Your task to perform on an android device: change the clock display to analog Image 0: 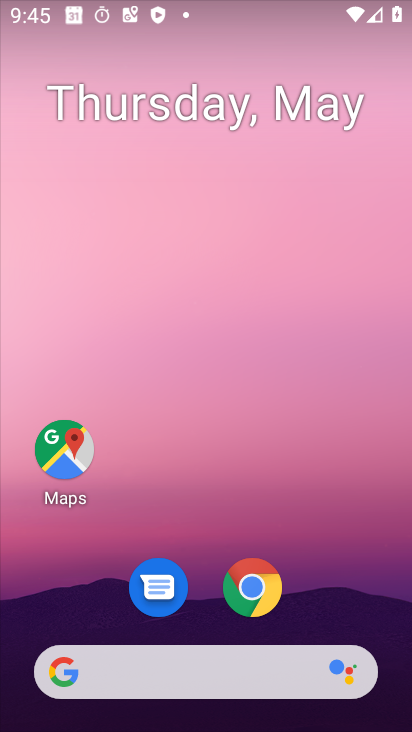
Step 0: drag from (375, 639) to (337, 23)
Your task to perform on an android device: change the clock display to analog Image 1: 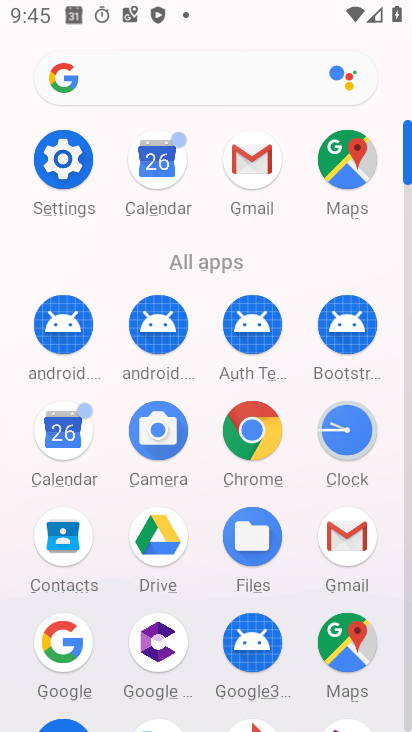
Step 1: click (344, 427)
Your task to perform on an android device: change the clock display to analog Image 2: 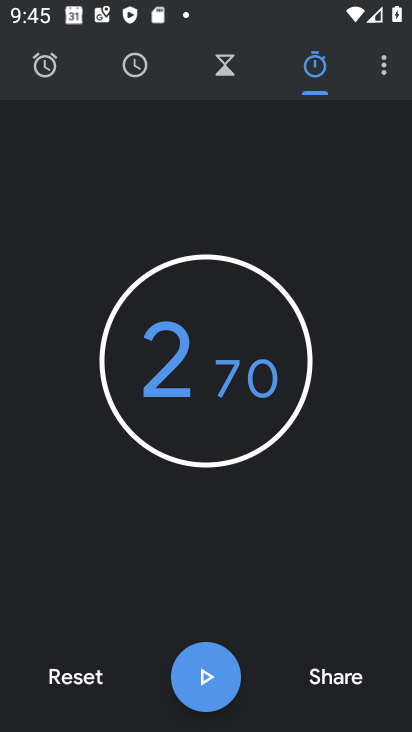
Step 2: click (388, 66)
Your task to perform on an android device: change the clock display to analog Image 3: 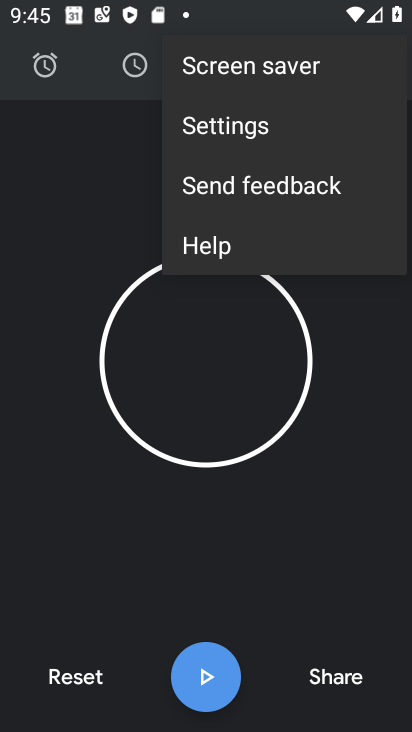
Step 3: click (257, 135)
Your task to perform on an android device: change the clock display to analog Image 4: 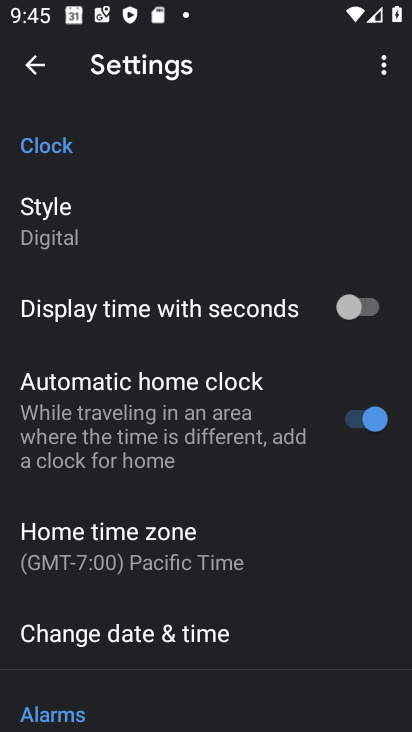
Step 4: click (57, 225)
Your task to perform on an android device: change the clock display to analog Image 5: 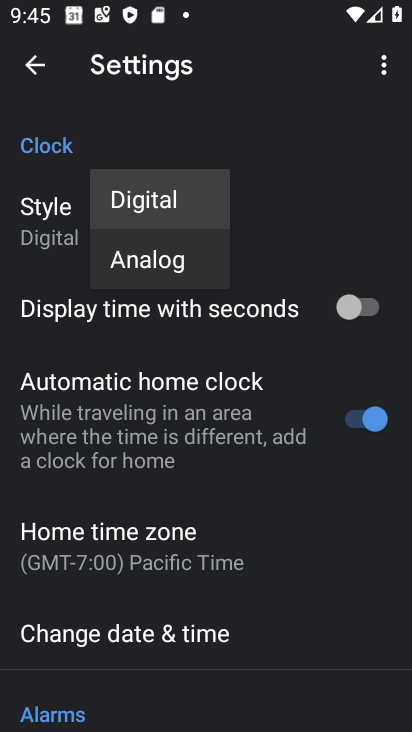
Step 5: click (140, 265)
Your task to perform on an android device: change the clock display to analog Image 6: 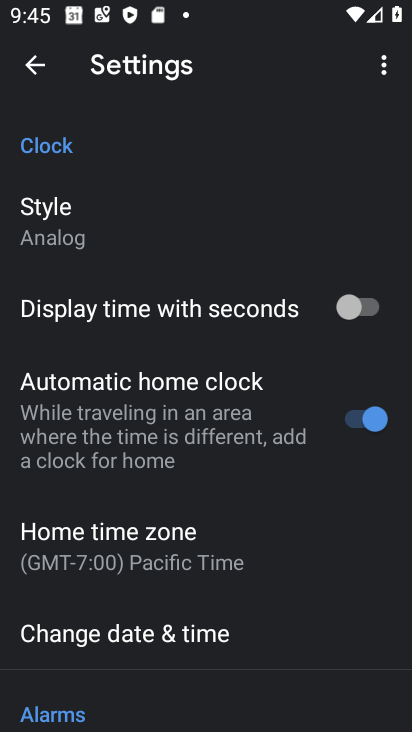
Step 6: task complete